Your task to perform on an android device: check google app version Image 0: 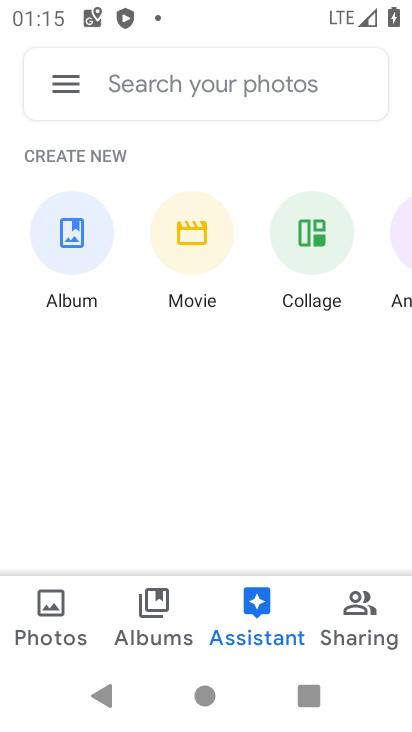
Step 0: press home button
Your task to perform on an android device: check google app version Image 1: 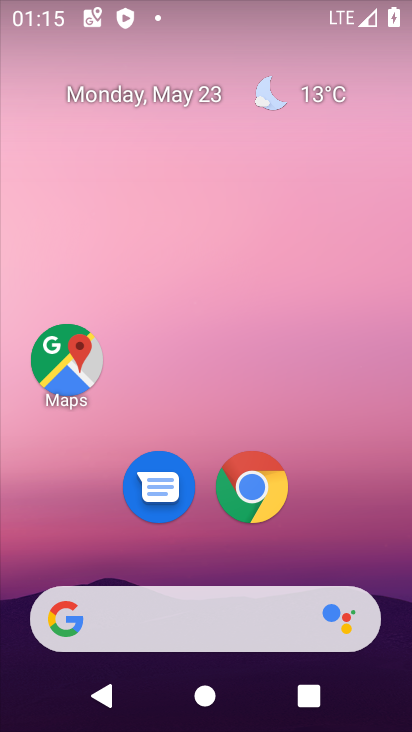
Step 1: click (247, 484)
Your task to perform on an android device: check google app version Image 2: 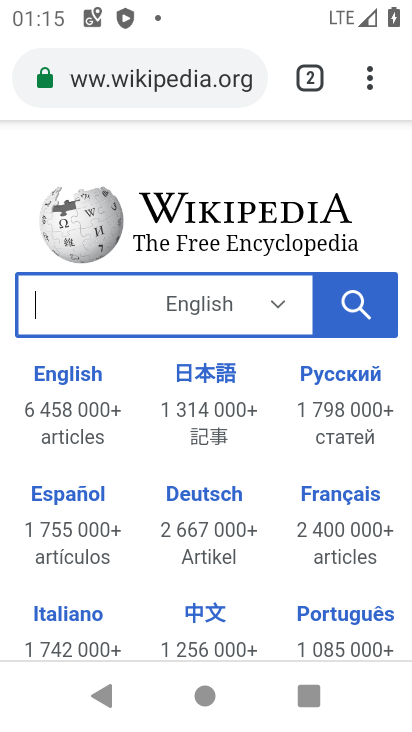
Step 2: click (375, 82)
Your task to perform on an android device: check google app version Image 3: 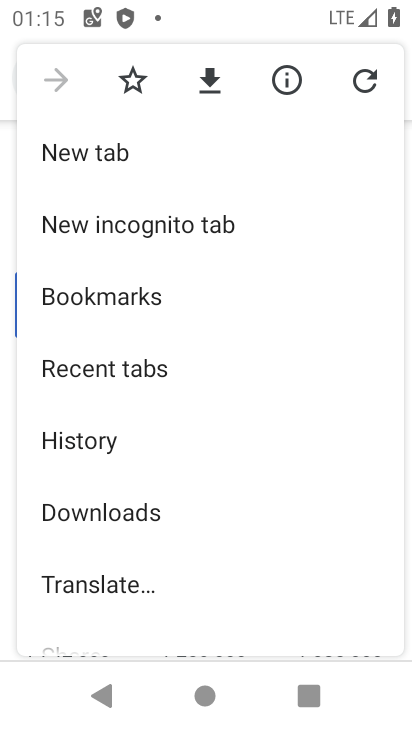
Step 3: drag from (180, 551) to (241, 233)
Your task to perform on an android device: check google app version Image 4: 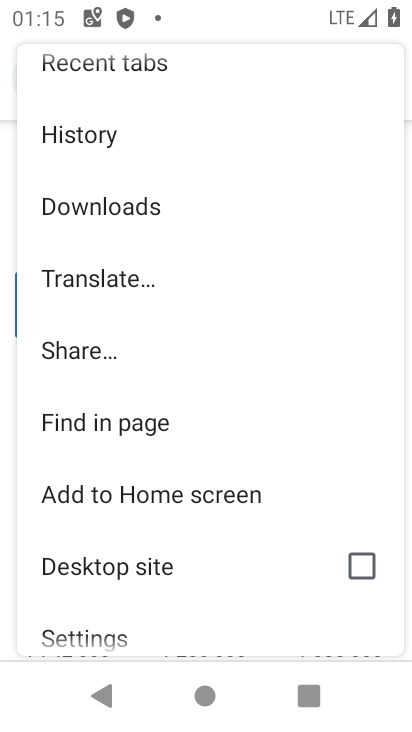
Step 4: drag from (257, 586) to (255, 169)
Your task to perform on an android device: check google app version Image 5: 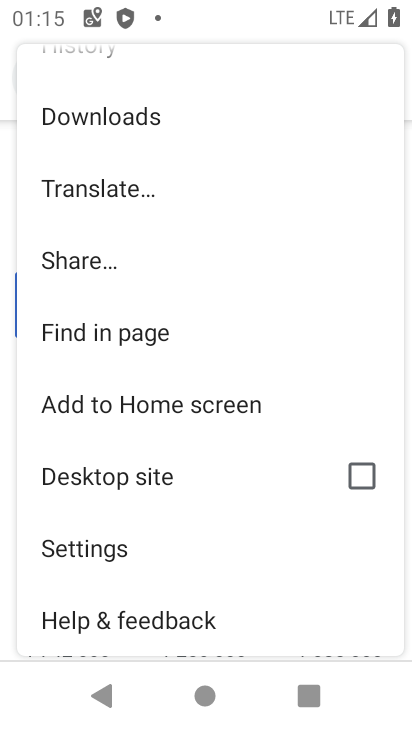
Step 5: click (88, 555)
Your task to perform on an android device: check google app version Image 6: 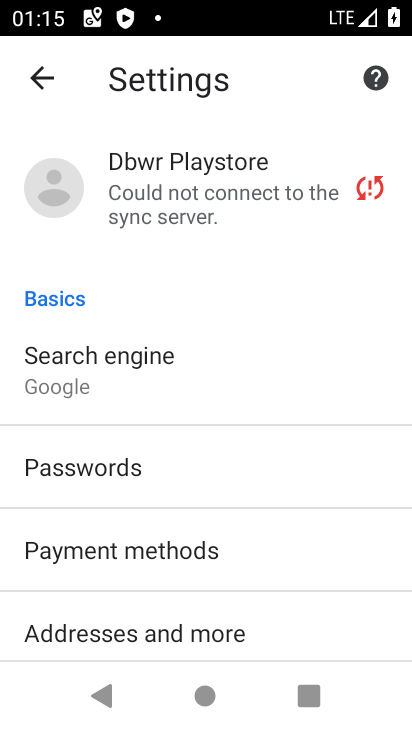
Step 6: drag from (304, 629) to (252, 133)
Your task to perform on an android device: check google app version Image 7: 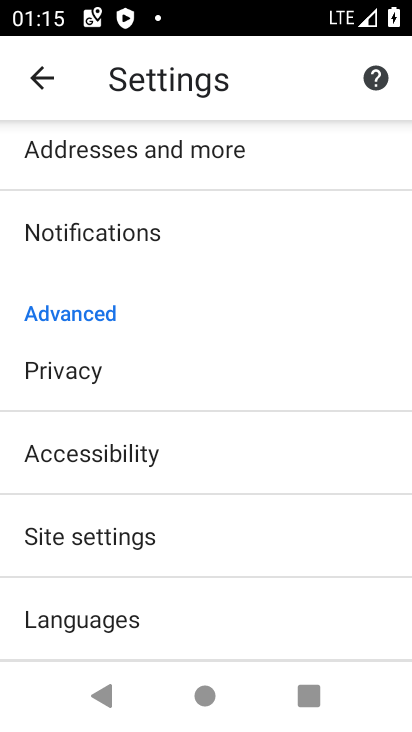
Step 7: drag from (182, 627) to (214, 218)
Your task to perform on an android device: check google app version Image 8: 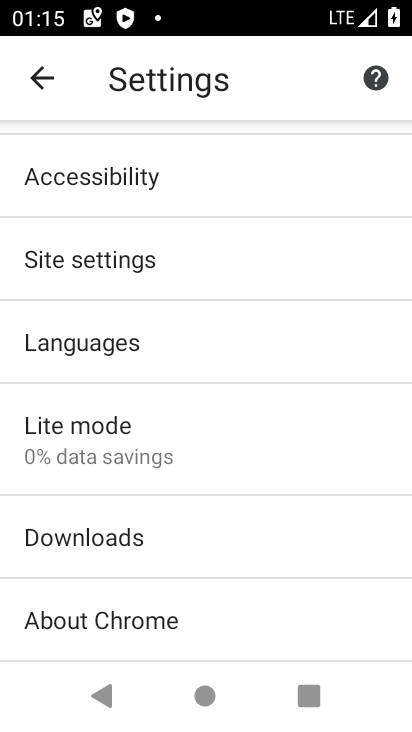
Step 8: click (80, 623)
Your task to perform on an android device: check google app version Image 9: 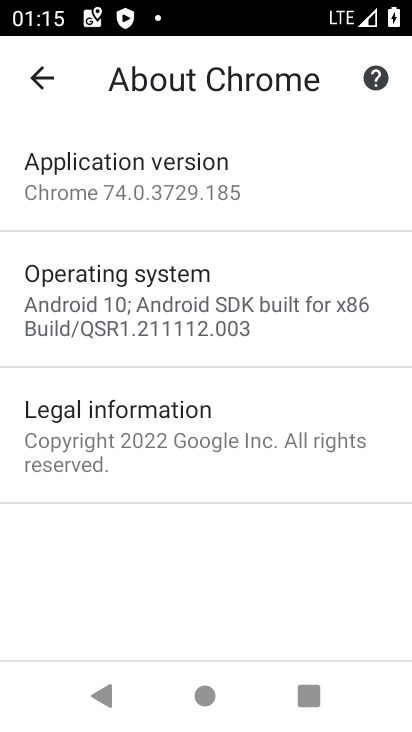
Step 9: click (161, 145)
Your task to perform on an android device: check google app version Image 10: 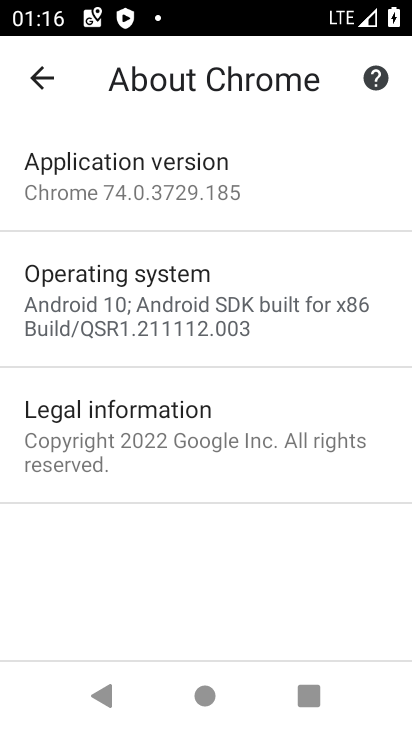
Step 10: task complete